Your task to perform on an android device: Show me popular videos on Youtube Image 0: 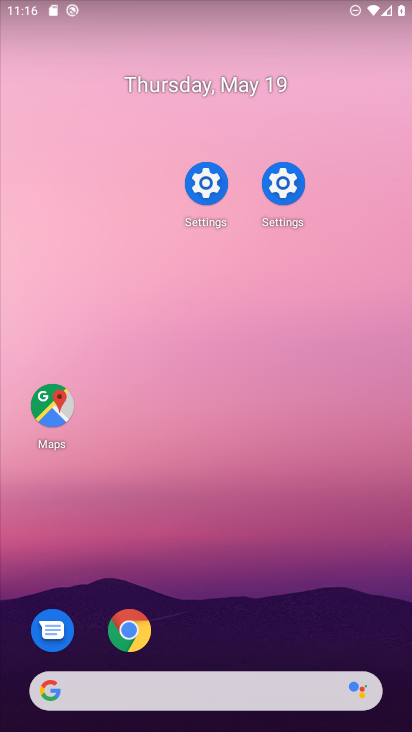
Step 0: drag from (288, 610) to (232, 282)
Your task to perform on an android device: Show me popular videos on Youtube Image 1: 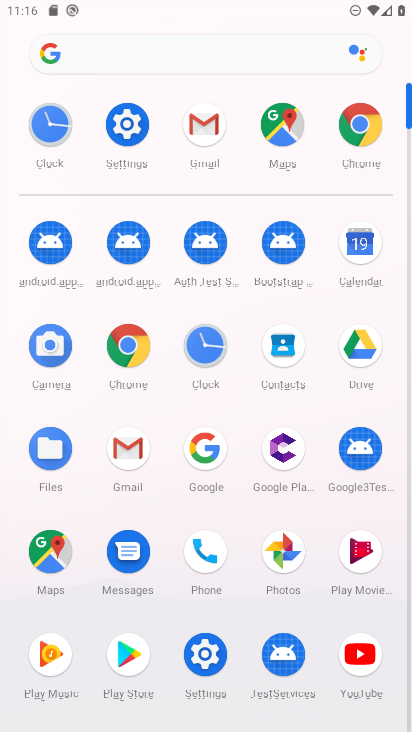
Step 1: click (350, 676)
Your task to perform on an android device: Show me popular videos on Youtube Image 2: 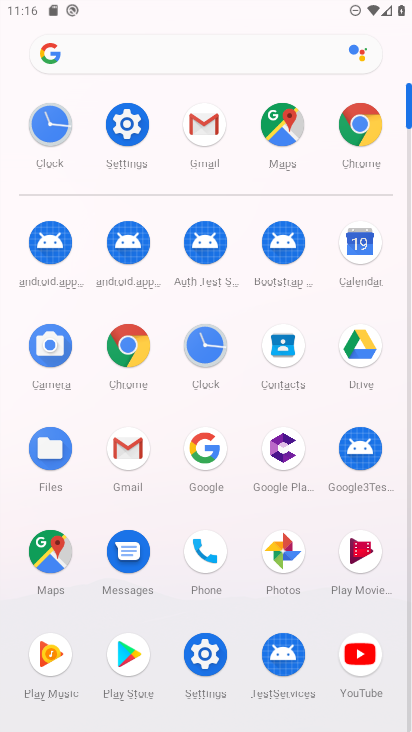
Step 2: click (346, 662)
Your task to perform on an android device: Show me popular videos on Youtube Image 3: 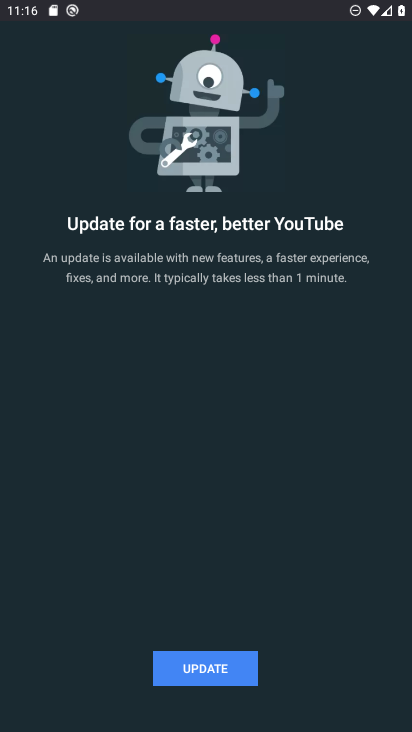
Step 3: click (217, 662)
Your task to perform on an android device: Show me popular videos on Youtube Image 4: 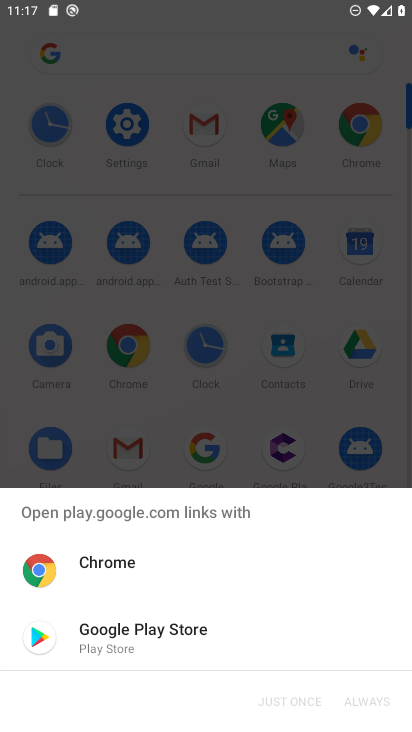
Step 4: click (140, 633)
Your task to perform on an android device: Show me popular videos on Youtube Image 5: 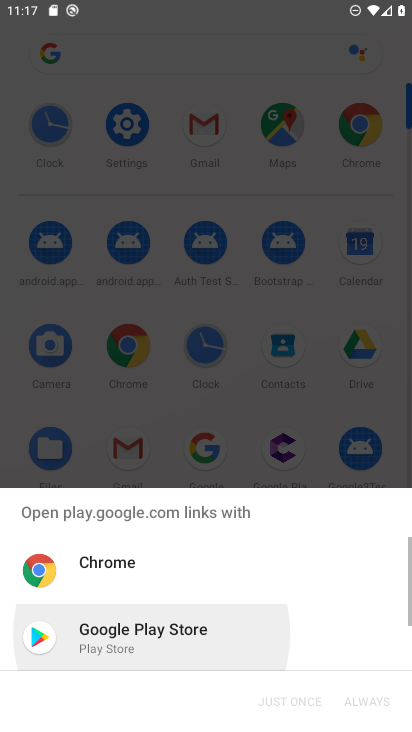
Step 5: click (139, 628)
Your task to perform on an android device: Show me popular videos on Youtube Image 6: 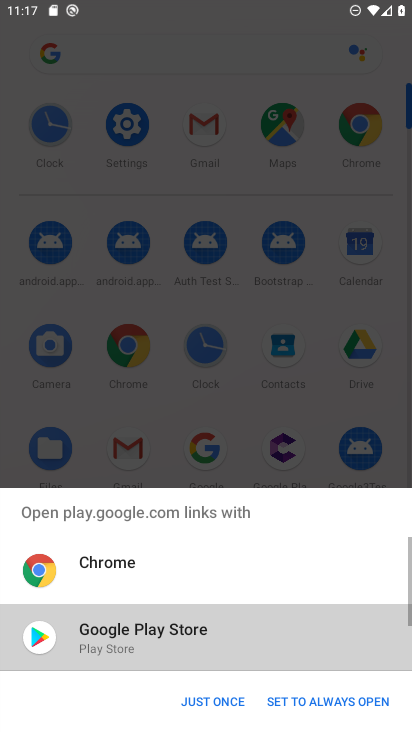
Step 6: click (139, 628)
Your task to perform on an android device: Show me popular videos on Youtube Image 7: 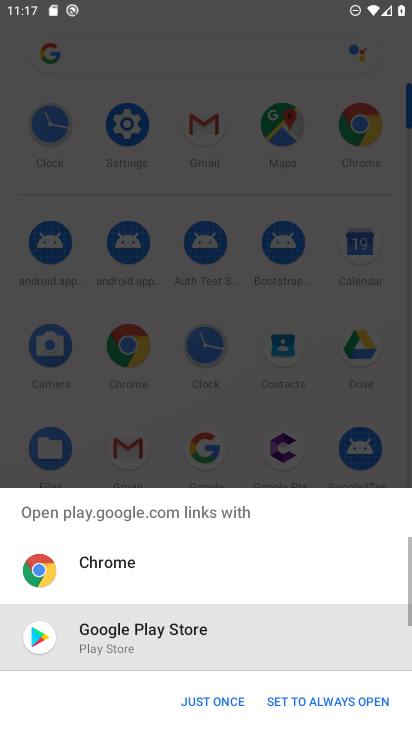
Step 7: click (140, 627)
Your task to perform on an android device: Show me popular videos on Youtube Image 8: 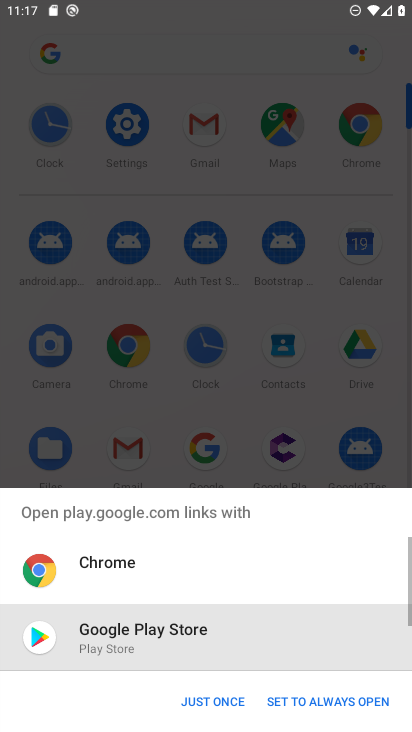
Step 8: click (147, 621)
Your task to perform on an android device: Show me popular videos on Youtube Image 9: 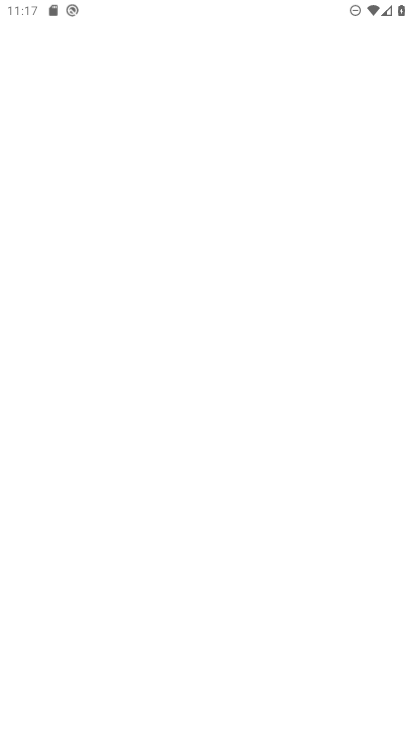
Step 9: click (150, 620)
Your task to perform on an android device: Show me popular videos on Youtube Image 10: 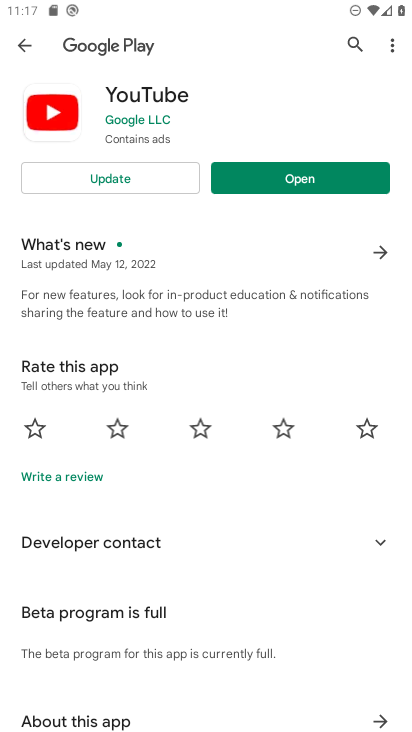
Step 10: click (169, 178)
Your task to perform on an android device: Show me popular videos on Youtube Image 11: 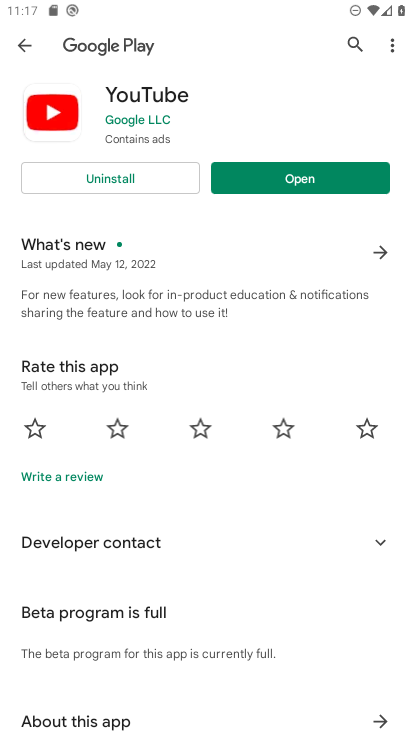
Step 11: click (264, 174)
Your task to perform on an android device: Show me popular videos on Youtube Image 12: 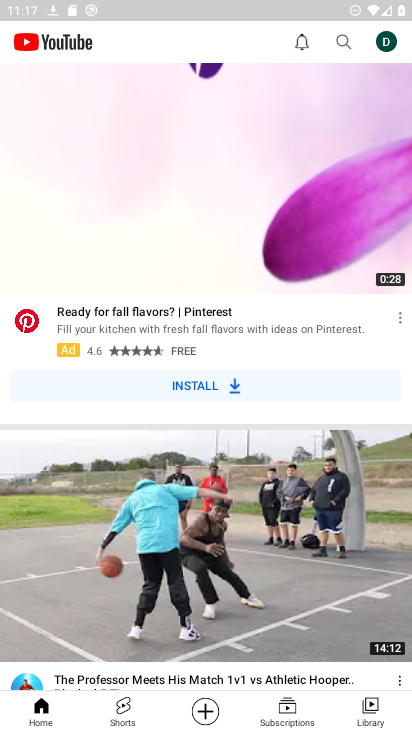
Step 12: task complete